Your task to perform on an android device: Open wifi settings Image 0: 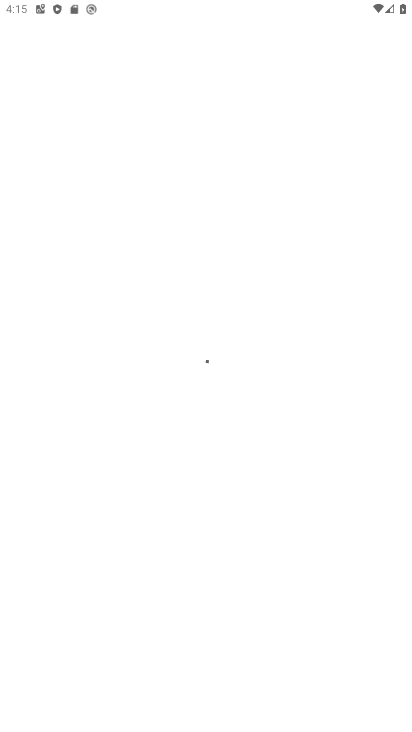
Step 0: press home button
Your task to perform on an android device: Open wifi settings Image 1: 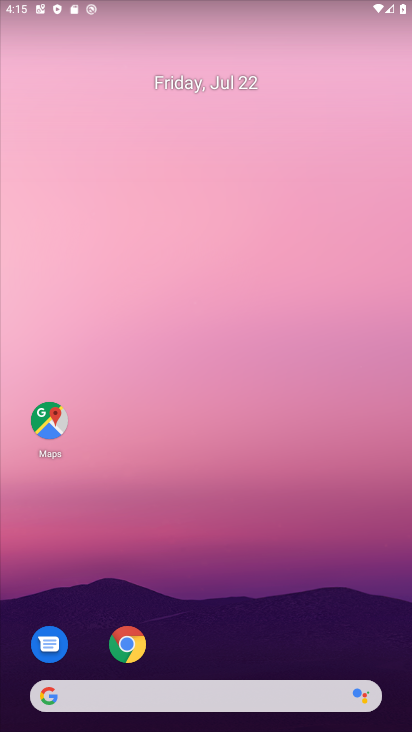
Step 1: drag from (170, 649) to (110, 125)
Your task to perform on an android device: Open wifi settings Image 2: 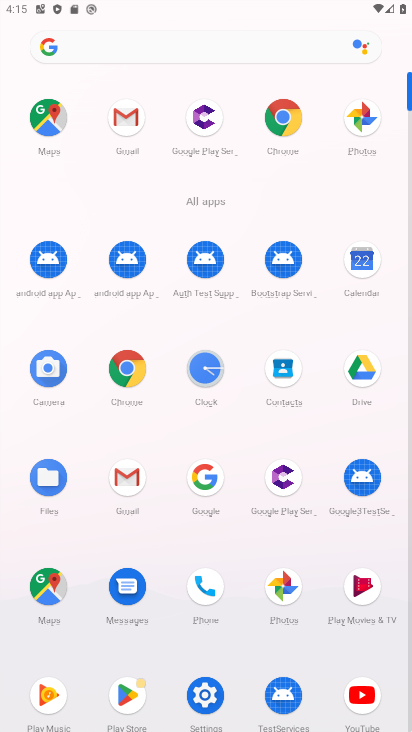
Step 2: click (205, 693)
Your task to perform on an android device: Open wifi settings Image 3: 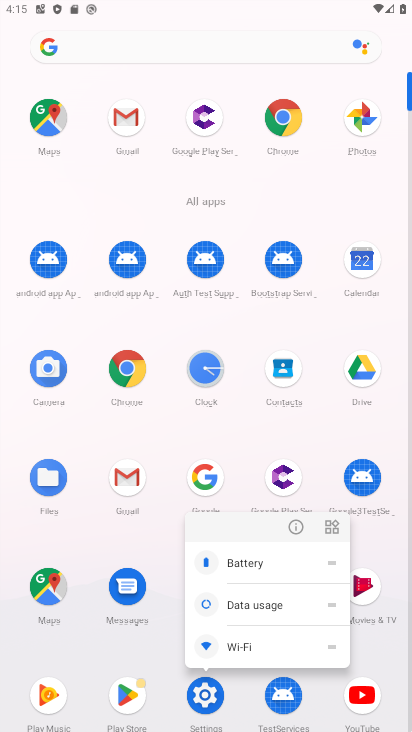
Step 3: click (206, 694)
Your task to perform on an android device: Open wifi settings Image 4: 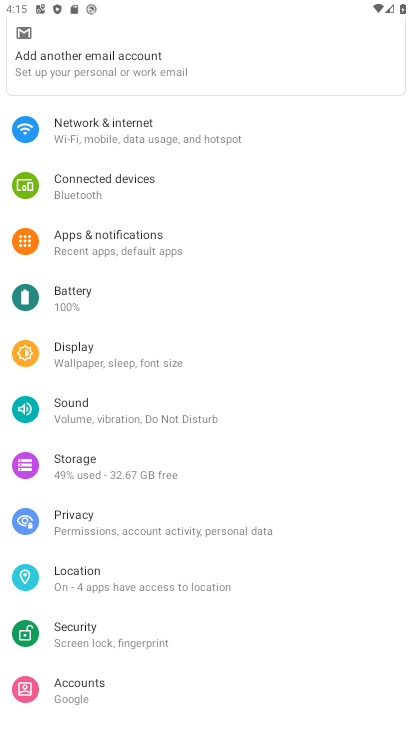
Step 4: click (125, 125)
Your task to perform on an android device: Open wifi settings Image 5: 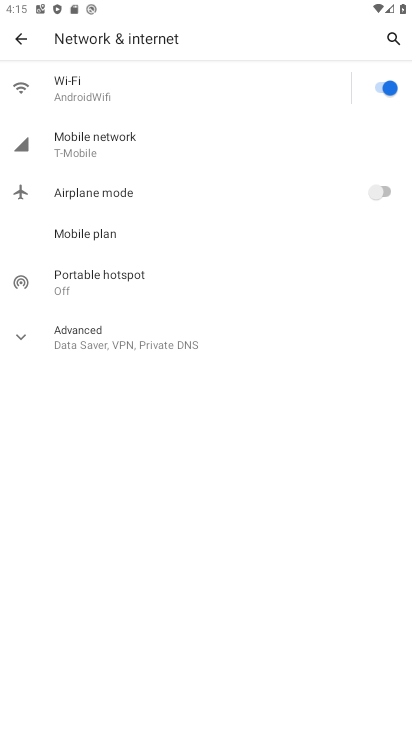
Step 5: click (145, 84)
Your task to perform on an android device: Open wifi settings Image 6: 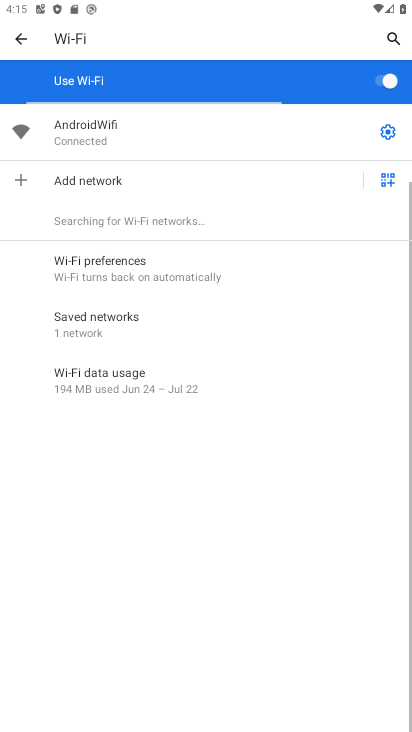
Step 6: click (136, 128)
Your task to perform on an android device: Open wifi settings Image 7: 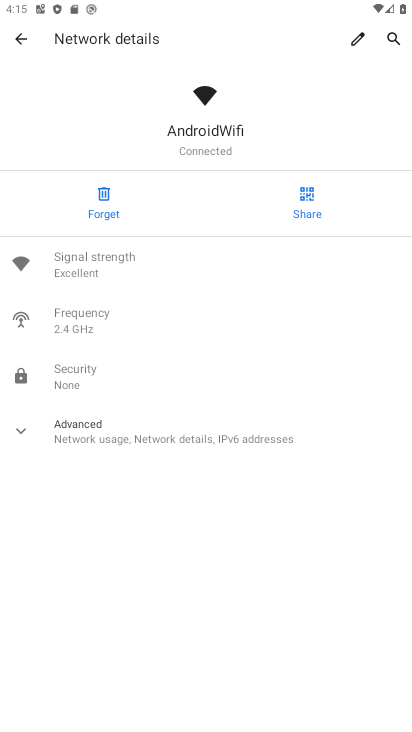
Step 7: task complete